Your task to perform on an android device: turn on improve location accuracy Image 0: 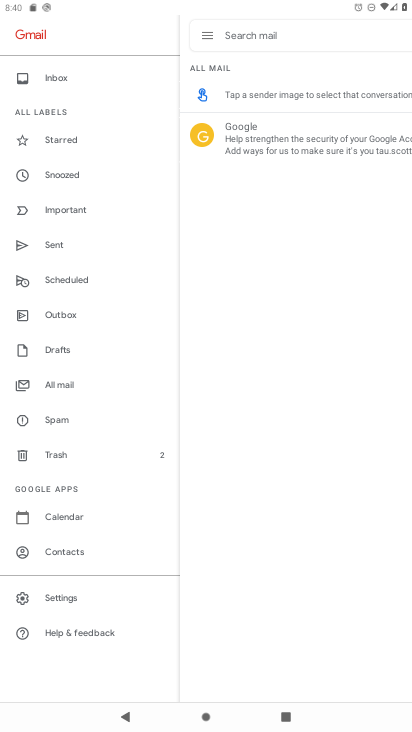
Step 0: press home button
Your task to perform on an android device: turn on improve location accuracy Image 1: 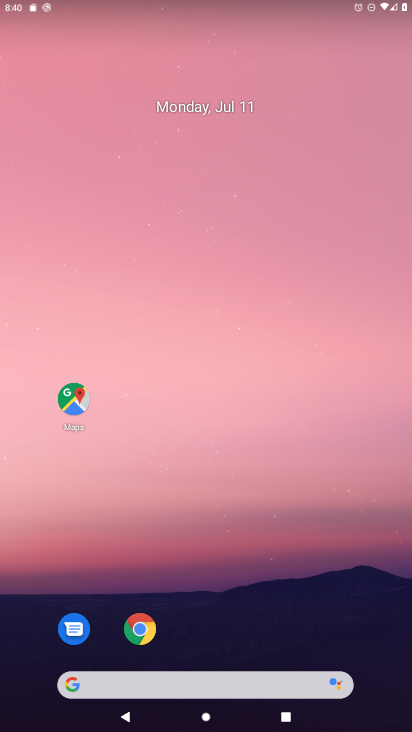
Step 1: drag from (208, 661) to (216, 77)
Your task to perform on an android device: turn on improve location accuracy Image 2: 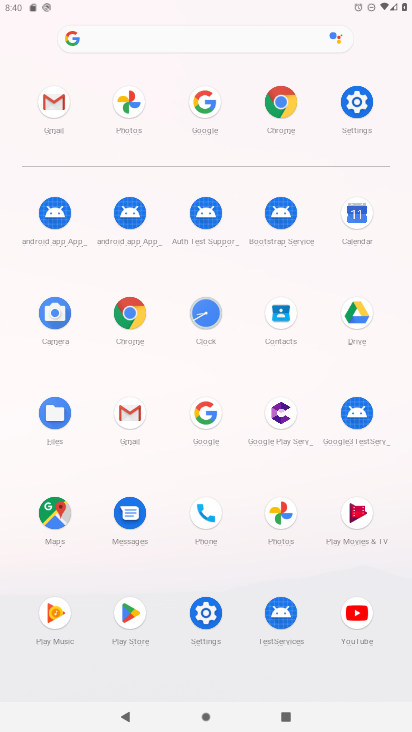
Step 2: click (352, 105)
Your task to perform on an android device: turn on improve location accuracy Image 3: 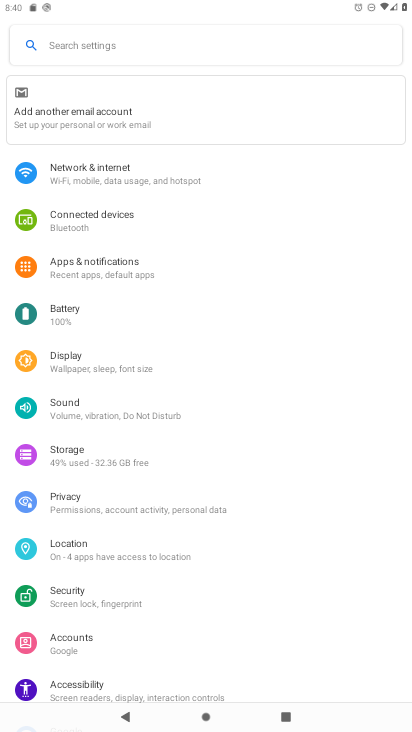
Step 3: click (91, 546)
Your task to perform on an android device: turn on improve location accuracy Image 4: 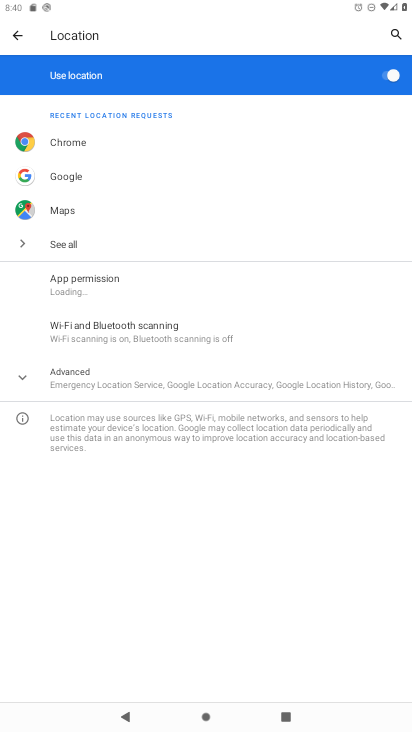
Step 4: click (103, 373)
Your task to perform on an android device: turn on improve location accuracy Image 5: 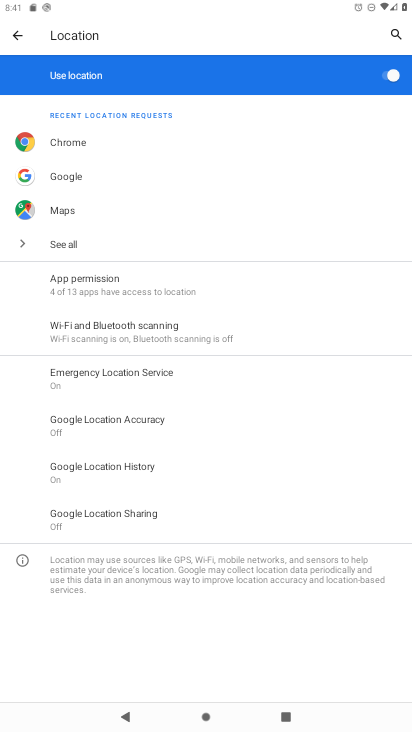
Step 5: click (122, 429)
Your task to perform on an android device: turn on improve location accuracy Image 6: 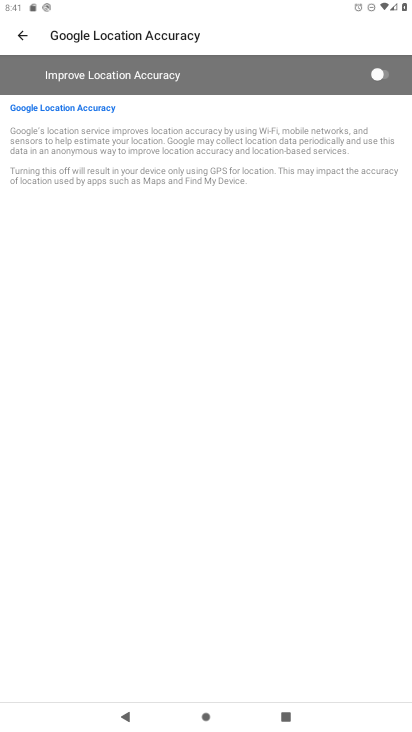
Step 6: click (381, 68)
Your task to perform on an android device: turn on improve location accuracy Image 7: 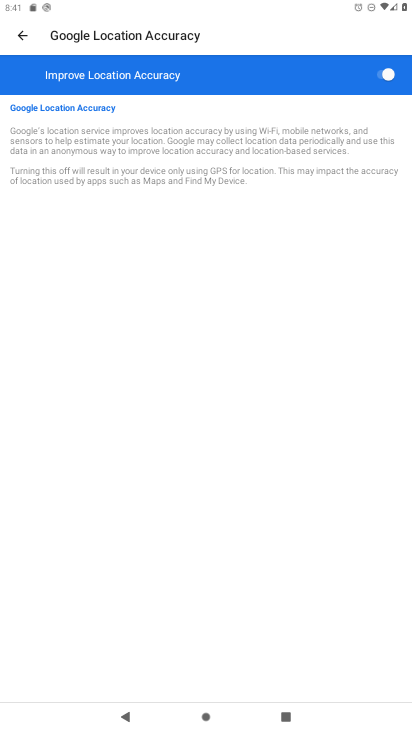
Step 7: task complete